Your task to perform on an android device: toggle show notifications on the lock screen Image 0: 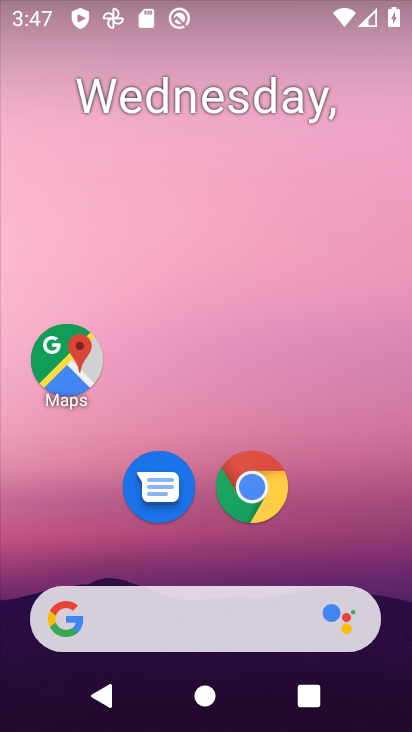
Step 0: drag from (382, 535) to (379, 200)
Your task to perform on an android device: toggle show notifications on the lock screen Image 1: 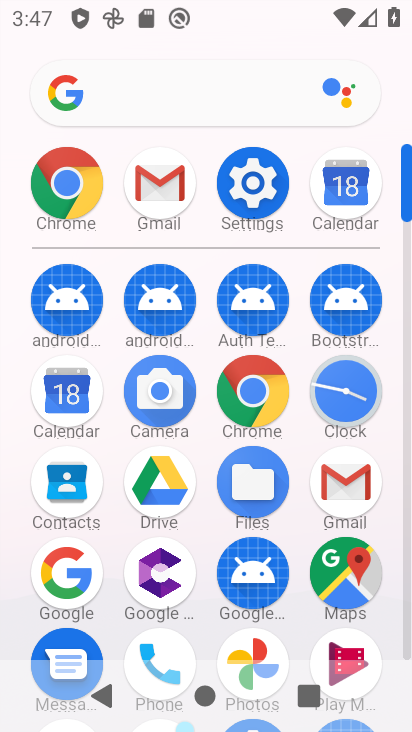
Step 1: click (262, 204)
Your task to perform on an android device: toggle show notifications on the lock screen Image 2: 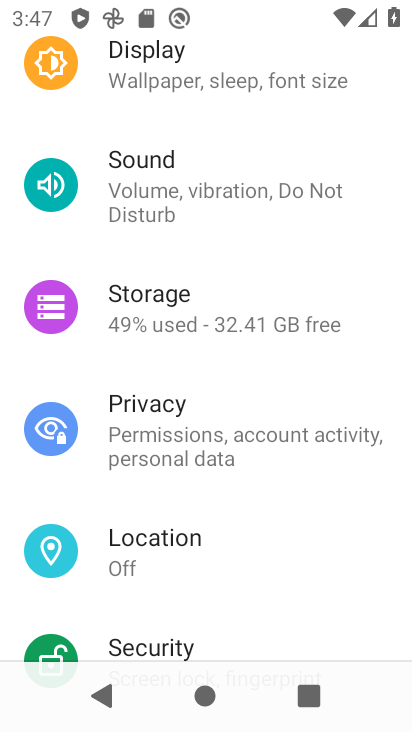
Step 2: drag from (320, 552) to (344, 427)
Your task to perform on an android device: toggle show notifications on the lock screen Image 3: 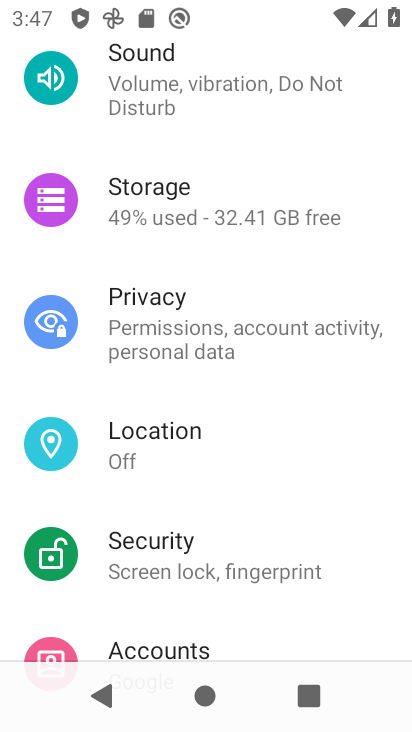
Step 3: drag from (357, 595) to (364, 509)
Your task to perform on an android device: toggle show notifications on the lock screen Image 4: 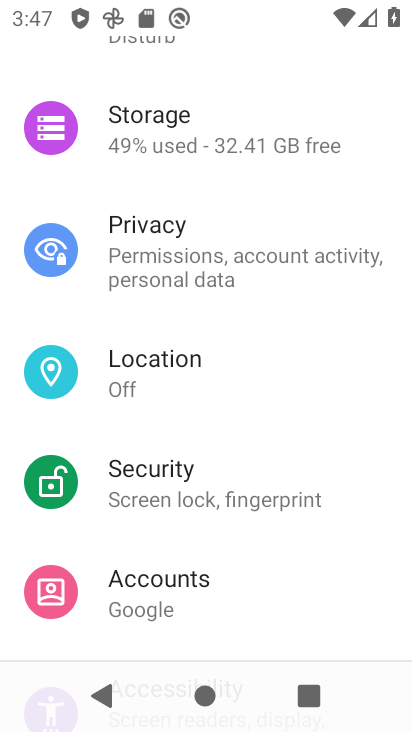
Step 4: drag from (346, 615) to (359, 486)
Your task to perform on an android device: toggle show notifications on the lock screen Image 5: 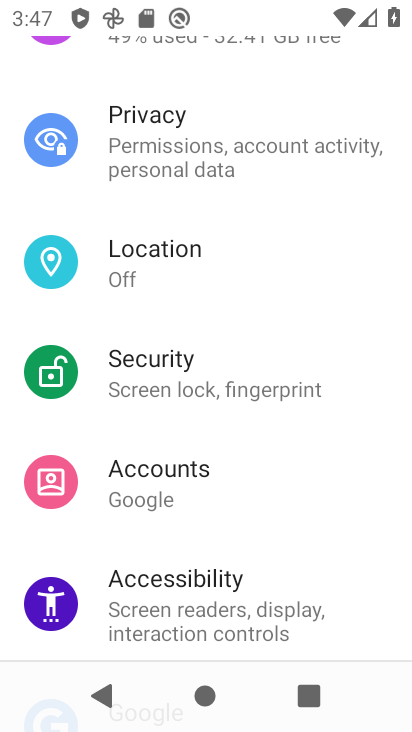
Step 5: drag from (366, 617) to (379, 519)
Your task to perform on an android device: toggle show notifications on the lock screen Image 6: 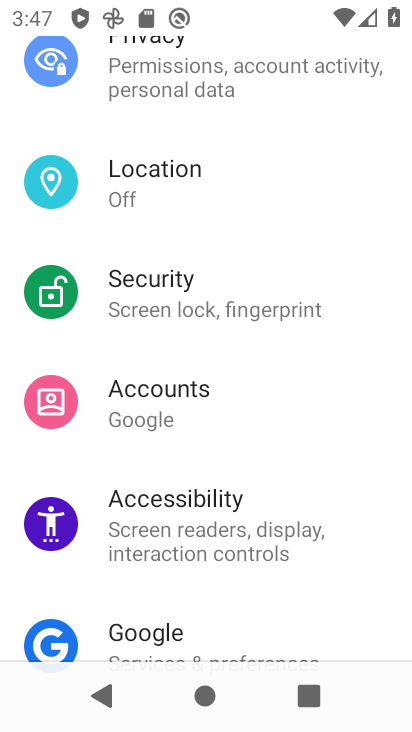
Step 6: drag from (356, 610) to (354, 533)
Your task to perform on an android device: toggle show notifications on the lock screen Image 7: 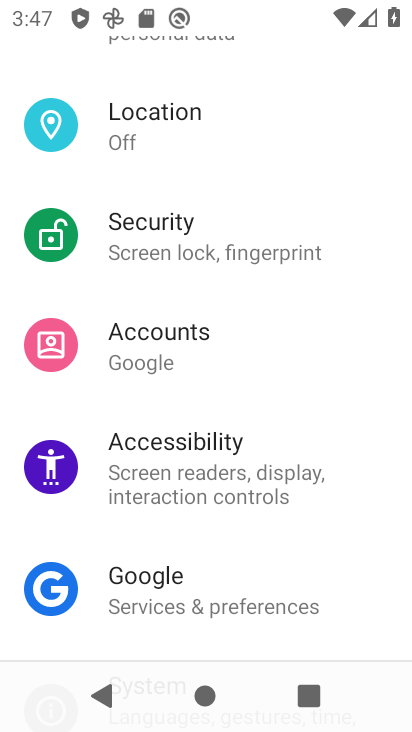
Step 7: drag from (345, 602) to (348, 509)
Your task to perform on an android device: toggle show notifications on the lock screen Image 8: 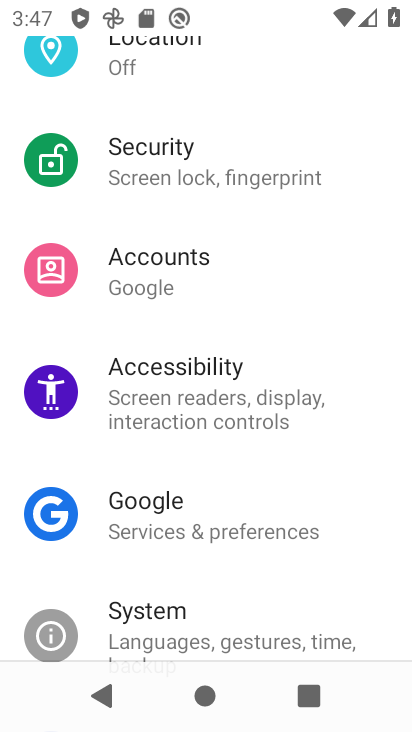
Step 8: drag from (352, 595) to (366, 497)
Your task to perform on an android device: toggle show notifications on the lock screen Image 9: 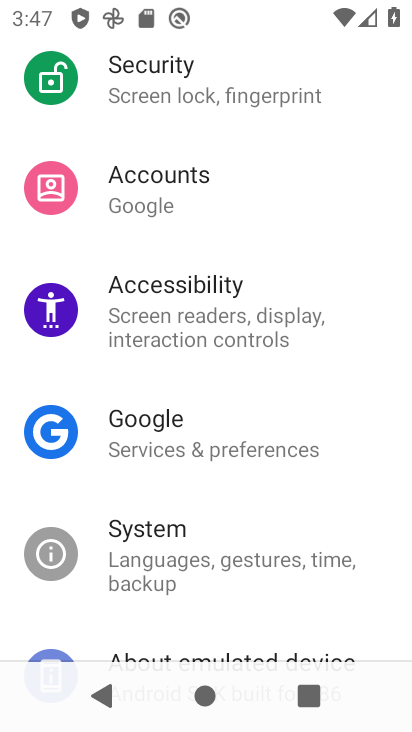
Step 9: drag from (370, 624) to (363, 519)
Your task to perform on an android device: toggle show notifications on the lock screen Image 10: 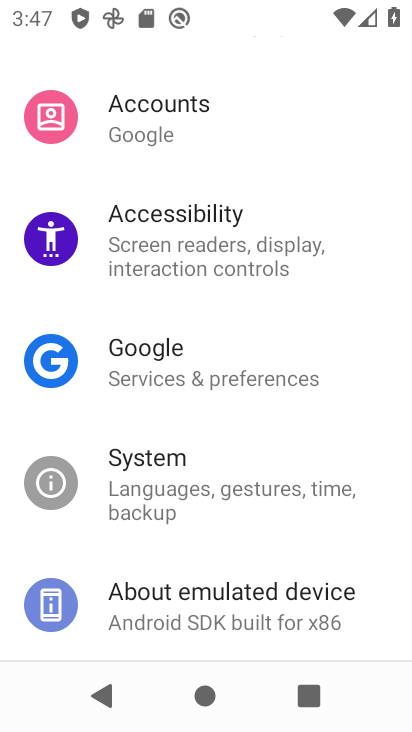
Step 10: drag from (353, 382) to (351, 494)
Your task to perform on an android device: toggle show notifications on the lock screen Image 11: 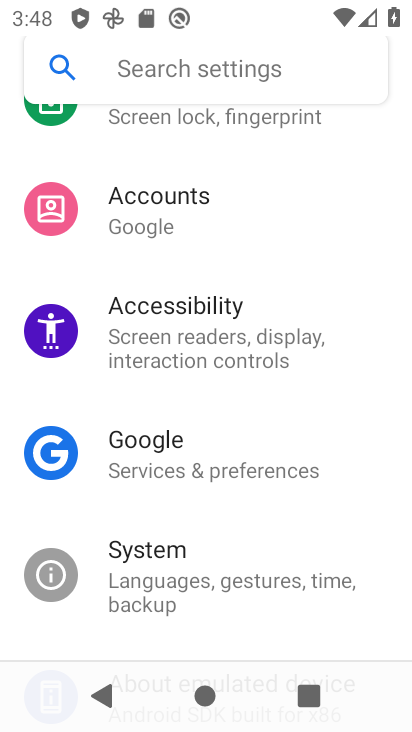
Step 11: drag from (350, 391) to (355, 440)
Your task to perform on an android device: toggle show notifications on the lock screen Image 12: 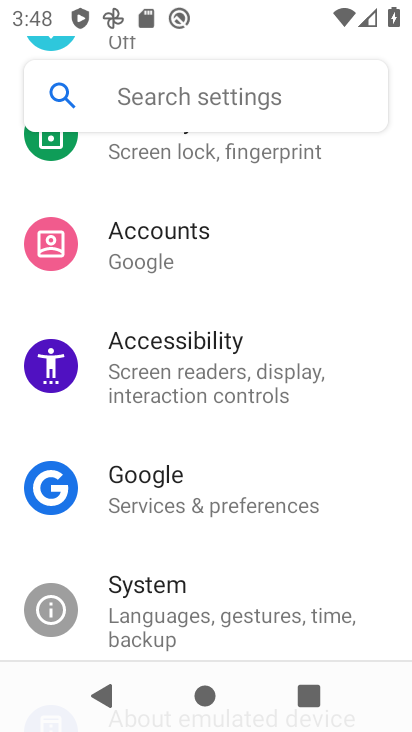
Step 12: drag from (354, 379) to (369, 460)
Your task to perform on an android device: toggle show notifications on the lock screen Image 13: 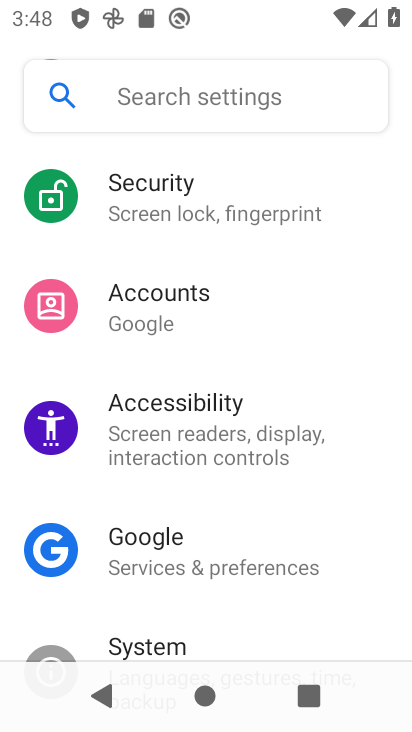
Step 13: drag from (360, 348) to (364, 458)
Your task to perform on an android device: toggle show notifications on the lock screen Image 14: 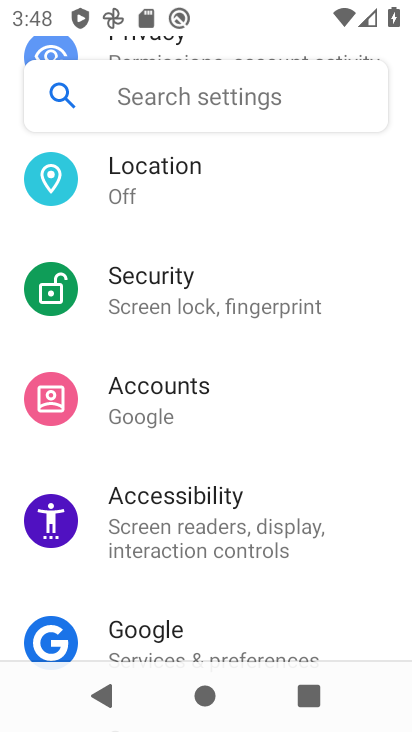
Step 14: drag from (367, 326) to (356, 415)
Your task to perform on an android device: toggle show notifications on the lock screen Image 15: 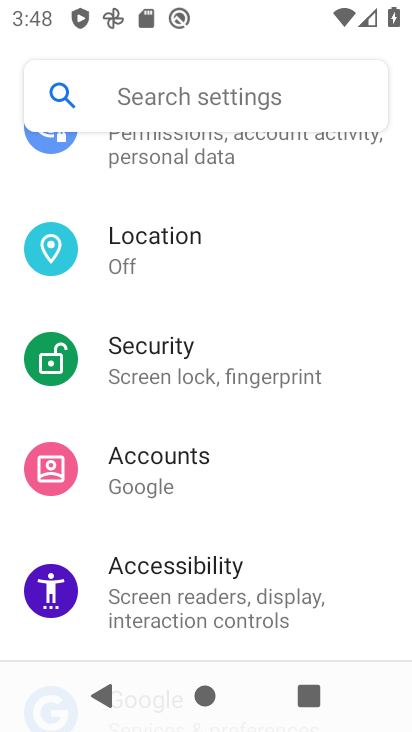
Step 15: drag from (356, 308) to (346, 409)
Your task to perform on an android device: toggle show notifications on the lock screen Image 16: 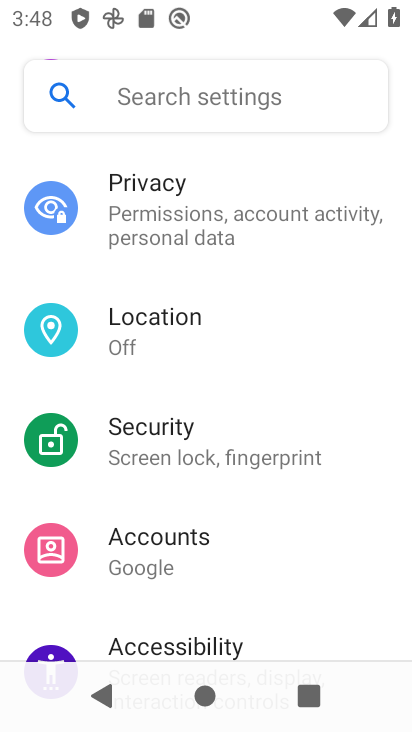
Step 16: drag from (344, 278) to (348, 402)
Your task to perform on an android device: toggle show notifications on the lock screen Image 17: 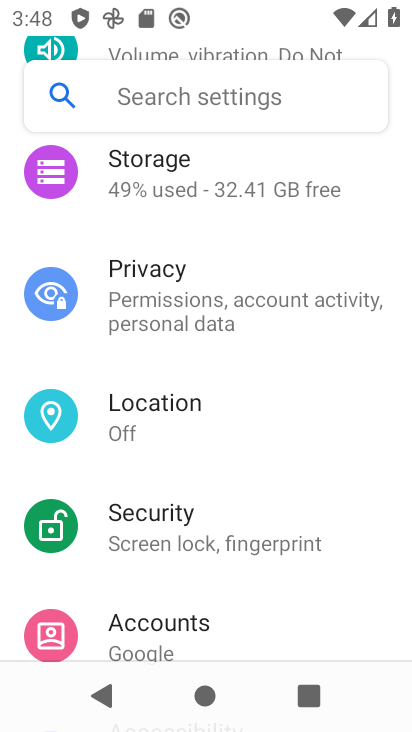
Step 17: drag from (360, 243) to (359, 345)
Your task to perform on an android device: toggle show notifications on the lock screen Image 18: 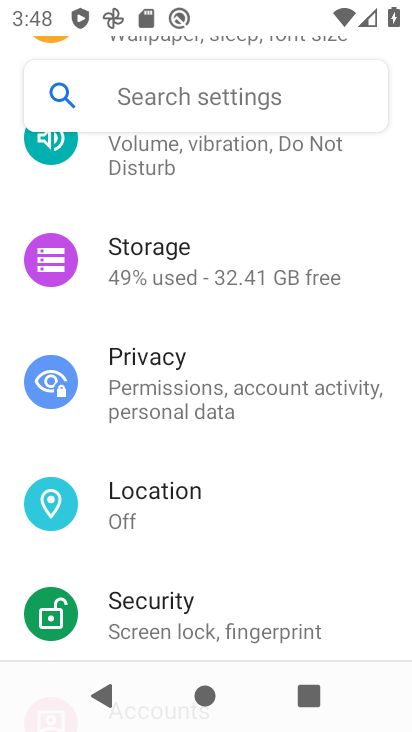
Step 18: drag from (361, 221) to (352, 336)
Your task to perform on an android device: toggle show notifications on the lock screen Image 19: 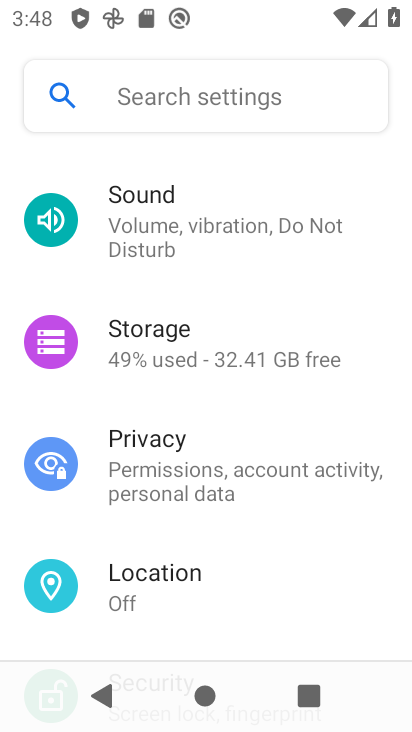
Step 19: drag from (357, 207) to (349, 314)
Your task to perform on an android device: toggle show notifications on the lock screen Image 20: 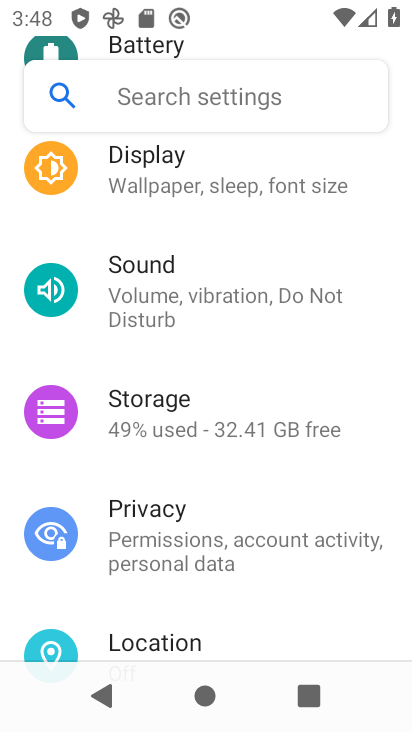
Step 20: drag from (341, 183) to (332, 277)
Your task to perform on an android device: toggle show notifications on the lock screen Image 21: 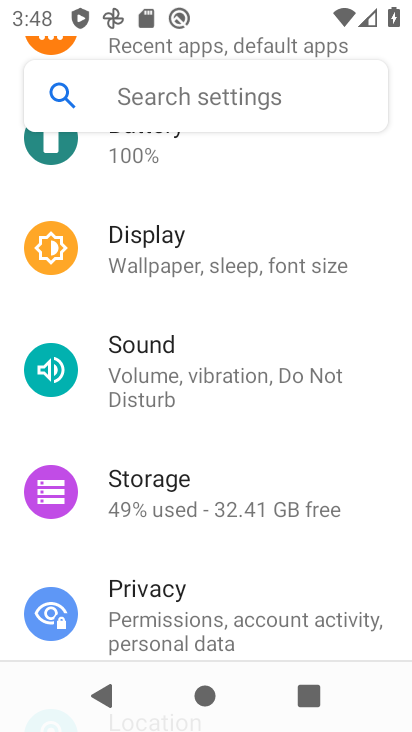
Step 21: drag from (326, 226) to (320, 309)
Your task to perform on an android device: toggle show notifications on the lock screen Image 22: 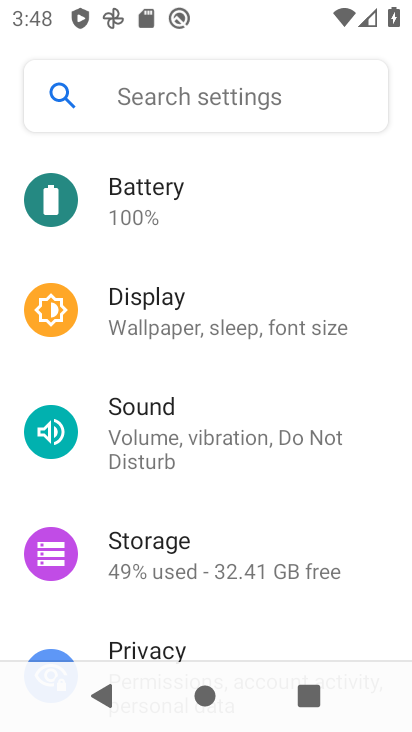
Step 22: drag from (315, 207) to (291, 304)
Your task to perform on an android device: toggle show notifications on the lock screen Image 23: 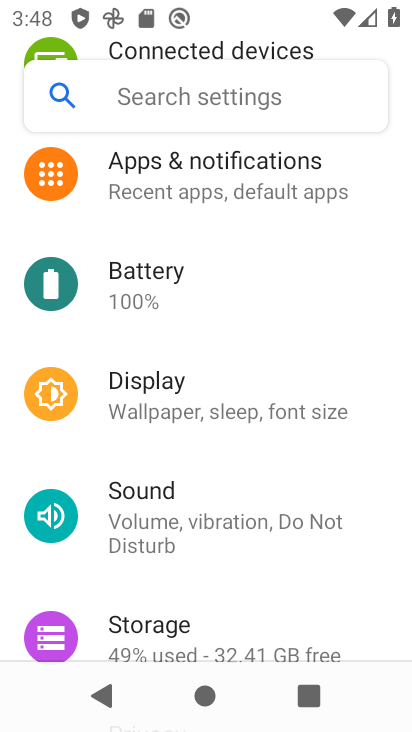
Step 23: click (269, 202)
Your task to perform on an android device: toggle show notifications on the lock screen Image 24: 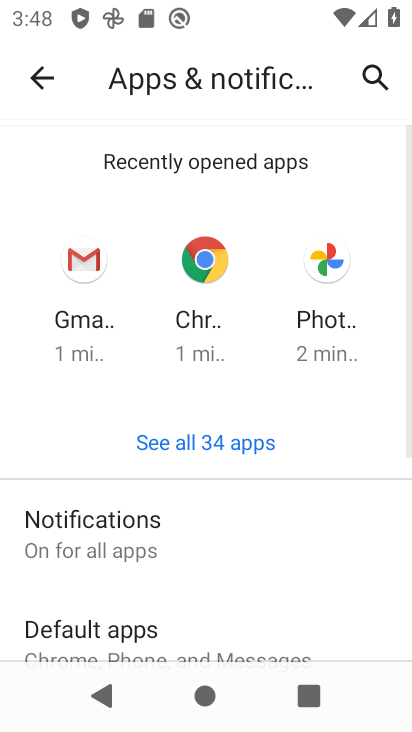
Step 24: click (152, 551)
Your task to perform on an android device: toggle show notifications on the lock screen Image 25: 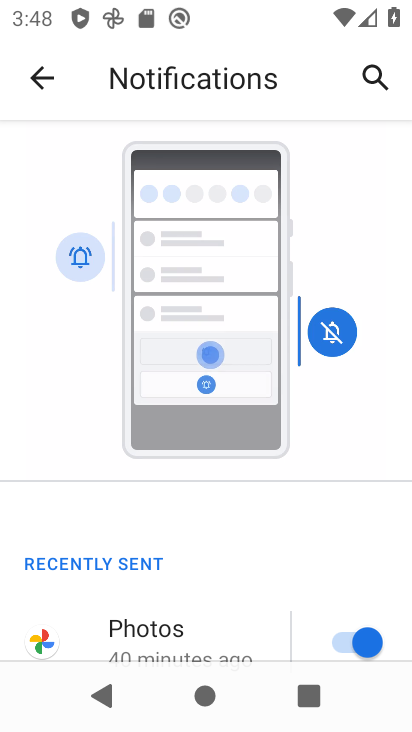
Step 25: drag from (228, 579) to (251, 455)
Your task to perform on an android device: toggle show notifications on the lock screen Image 26: 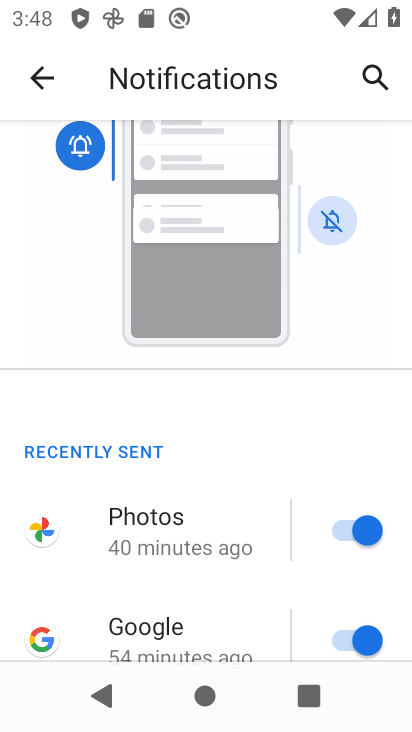
Step 26: drag from (244, 617) to (242, 494)
Your task to perform on an android device: toggle show notifications on the lock screen Image 27: 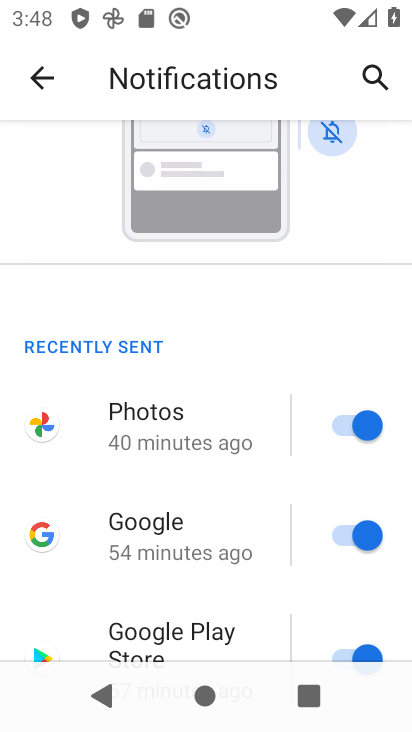
Step 27: drag from (232, 619) to (245, 474)
Your task to perform on an android device: toggle show notifications on the lock screen Image 28: 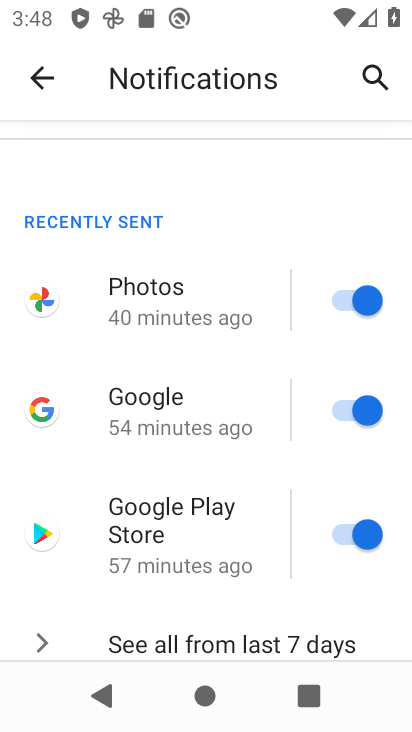
Step 28: drag from (270, 620) to (277, 504)
Your task to perform on an android device: toggle show notifications on the lock screen Image 29: 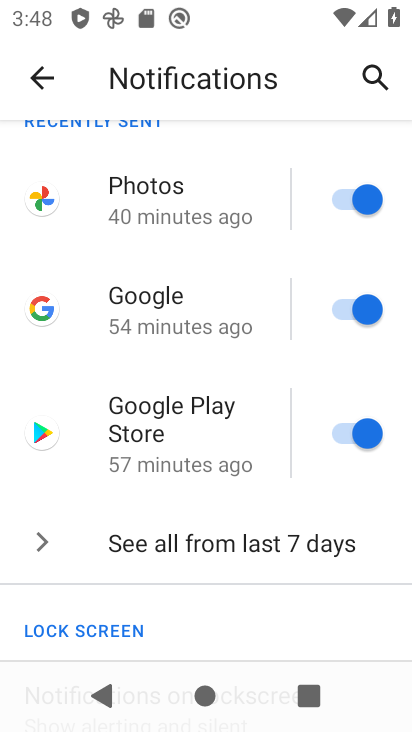
Step 29: drag from (264, 611) to (277, 499)
Your task to perform on an android device: toggle show notifications on the lock screen Image 30: 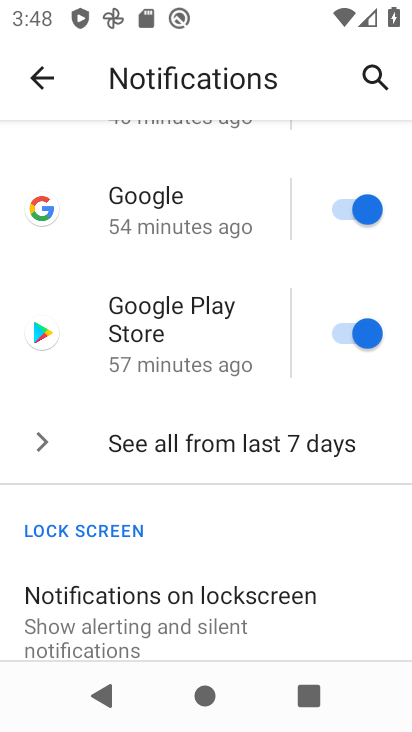
Step 30: drag from (278, 635) to (282, 523)
Your task to perform on an android device: toggle show notifications on the lock screen Image 31: 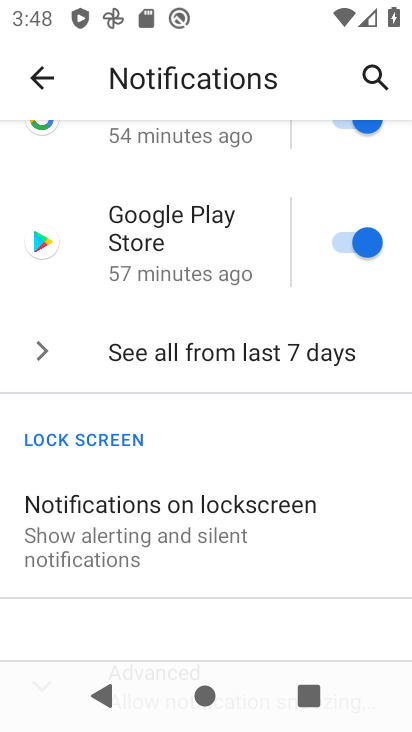
Step 31: drag from (301, 607) to (305, 485)
Your task to perform on an android device: toggle show notifications on the lock screen Image 32: 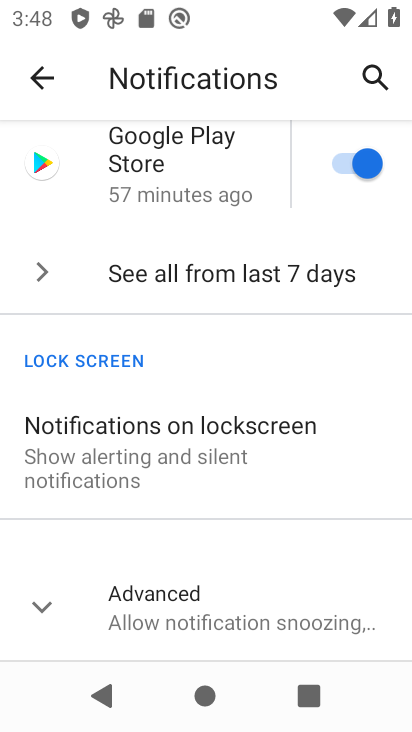
Step 32: click (263, 432)
Your task to perform on an android device: toggle show notifications on the lock screen Image 33: 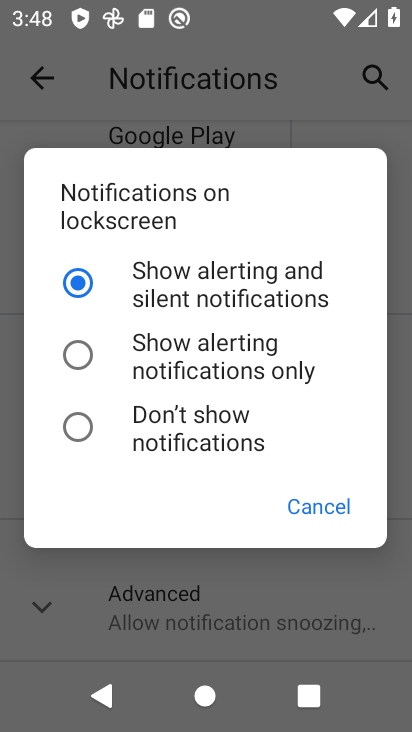
Step 33: click (178, 354)
Your task to perform on an android device: toggle show notifications on the lock screen Image 34: 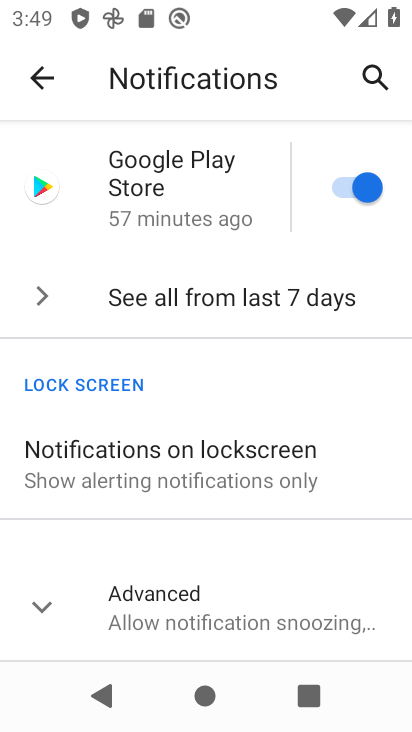
Step 34: task complete